Your task to perform on an android device: What is the recent news? Image 0: 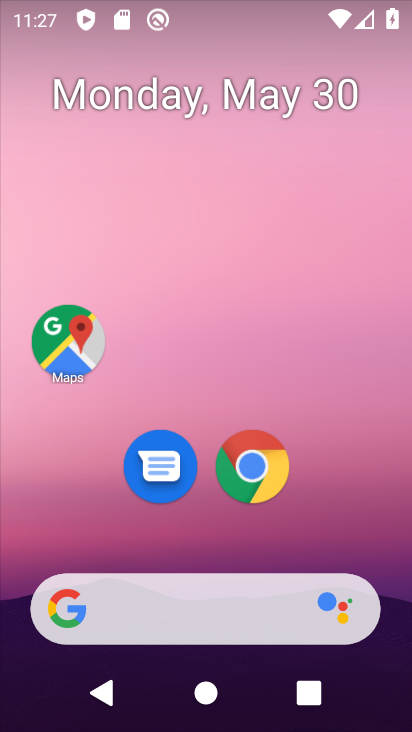
Step 0: drag from (13, 245) to (380, 170)
Your task to perform on an android device: What is the recent news? Image 1: 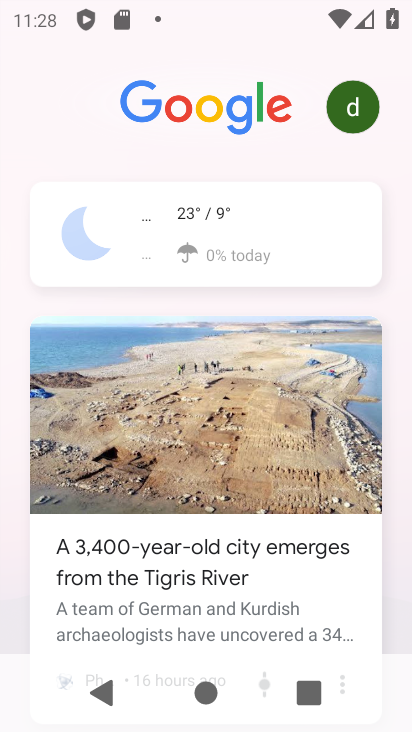
Step 1: task complete